Your task to perform on an android device: Open Google Chrome and open the bookmarks view Image 0: 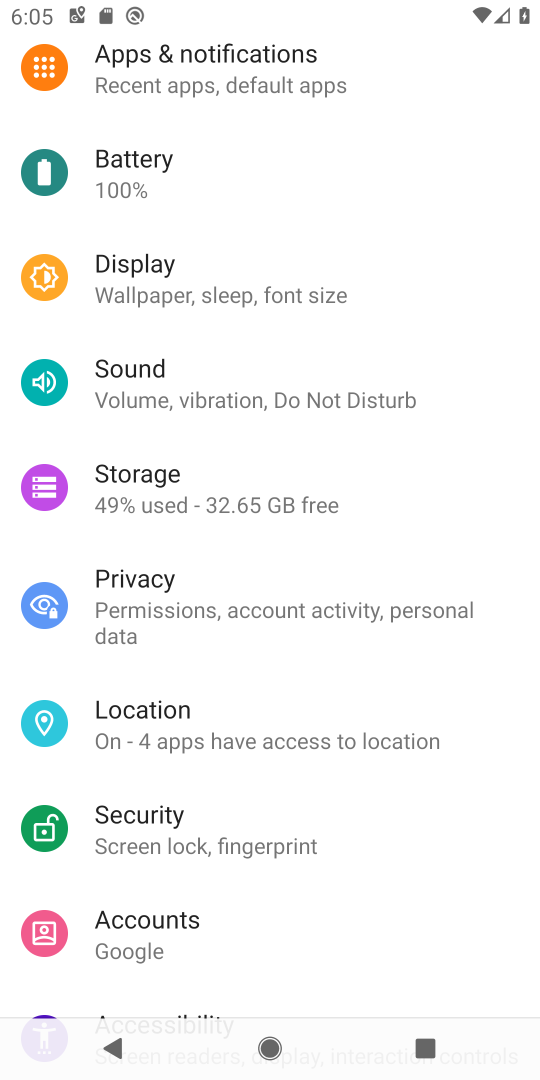
Step 0: press home button
Your task to perform on an android device: Open Google Chrome and open the bookmarks view Image 1: 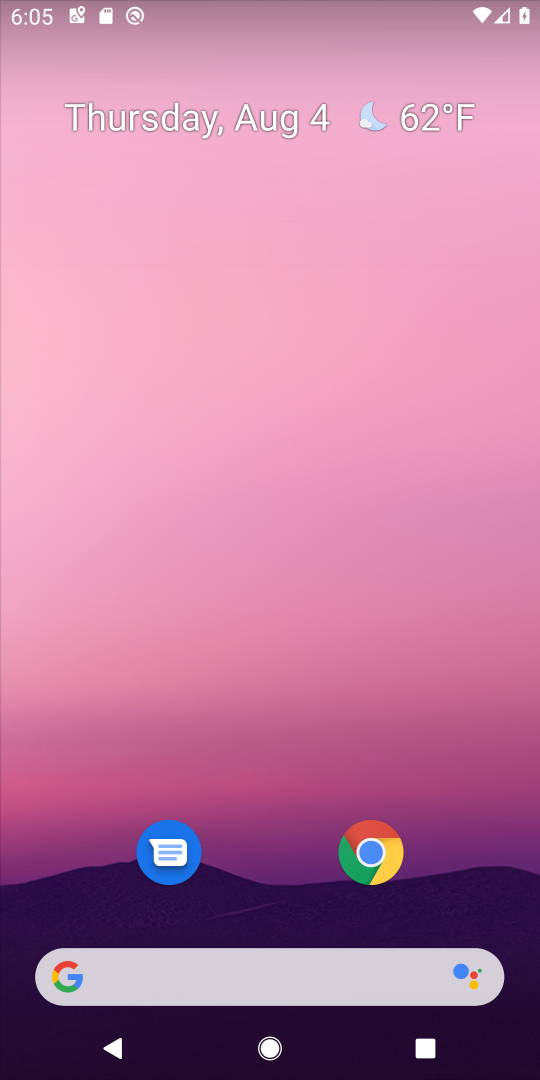
Step 1: click (375, 852)
Your task to perform on an android device: Open Google Chrome and open the bookmarks view Image 2: 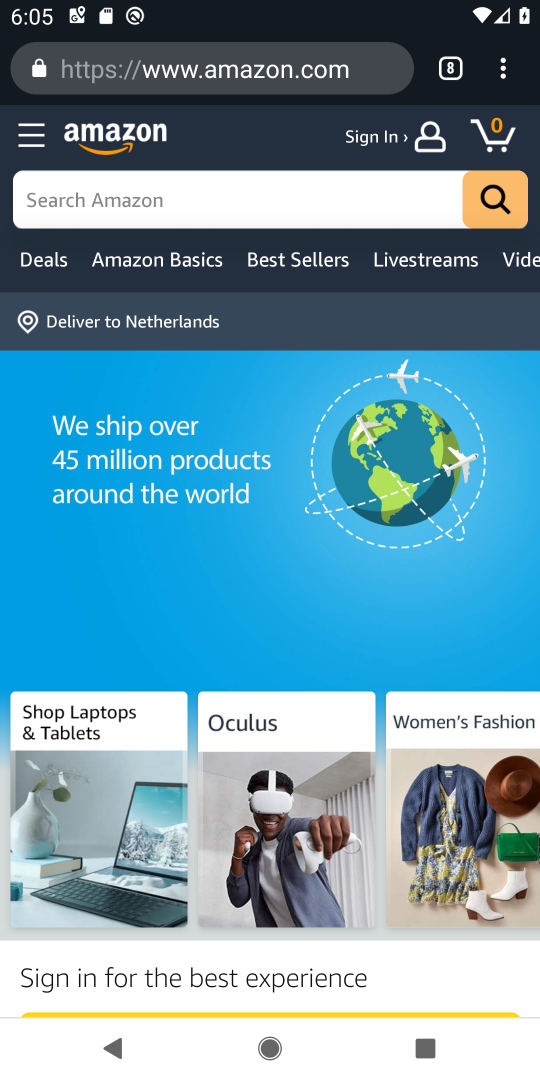
Step 2: click (502, 85)
Your task to perform on an android device: Open Google Chrome and open the bookmarks view Image 3: 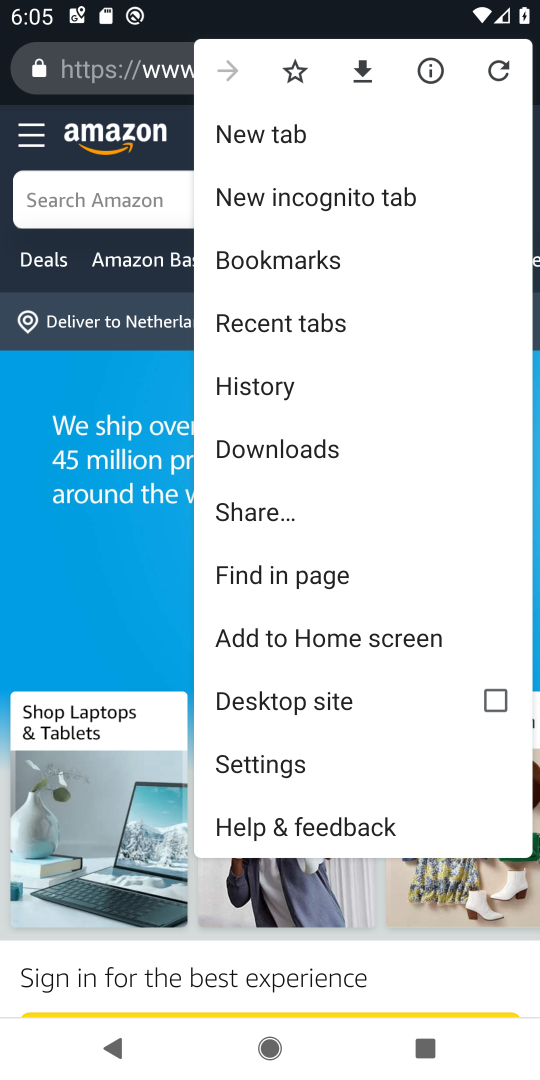
Step 3: click (281, 263)
Your task to perform on an android device: Open Google Chrome and open the bookmarks view Image 4: 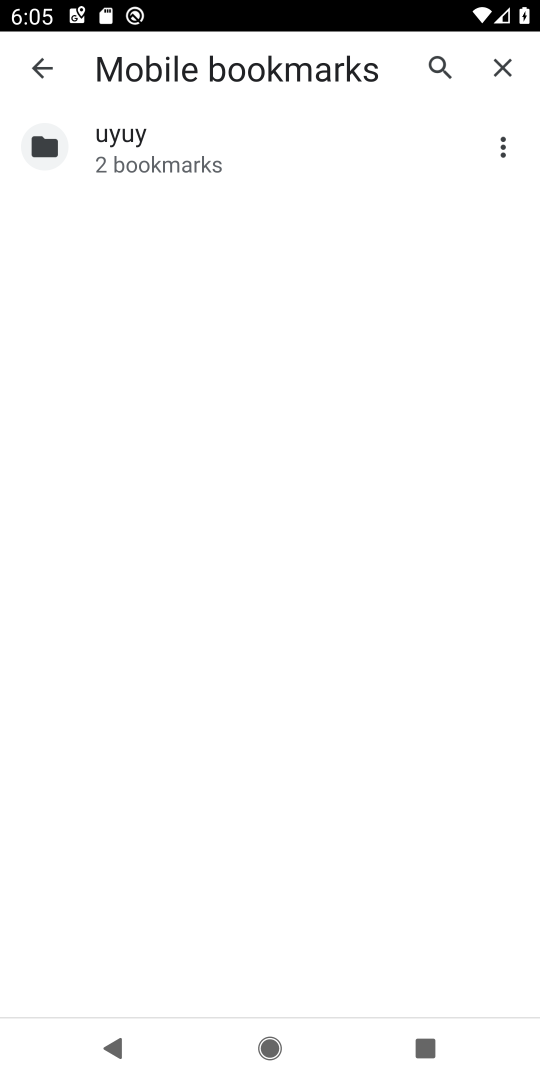
Step 4: click (176, 160)
Your task to perform on an android device: Open Google Chrome and open the bookmarks view Image 5: 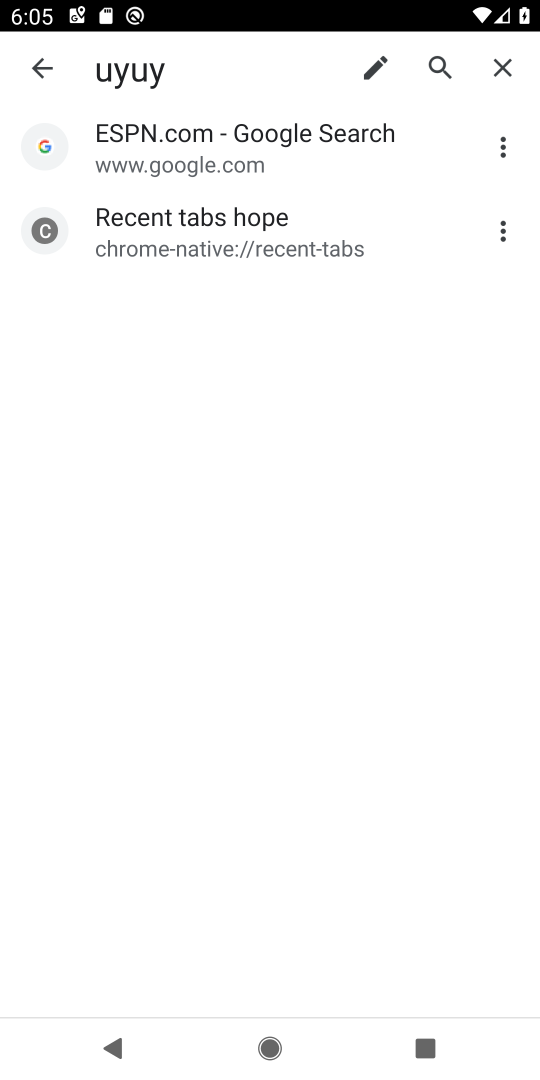
Step 5: task complete